Your task to perform on an android device: install app "PlayWell" Image 0: 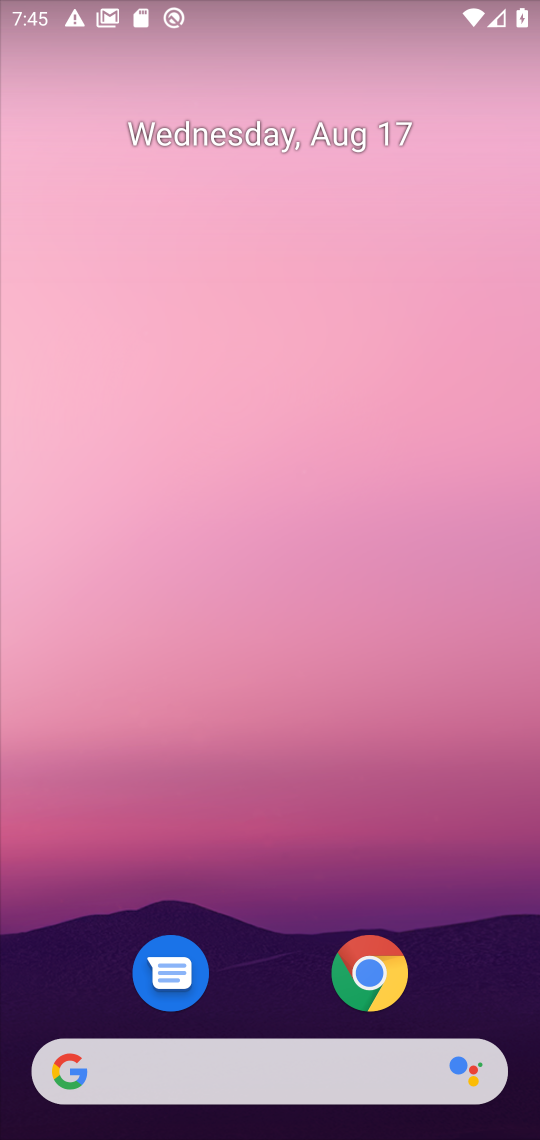
Step 0: drag from (344, 811) to (441, 204)
Your task to perform on an android device: install app "PlayWell" Image 1: 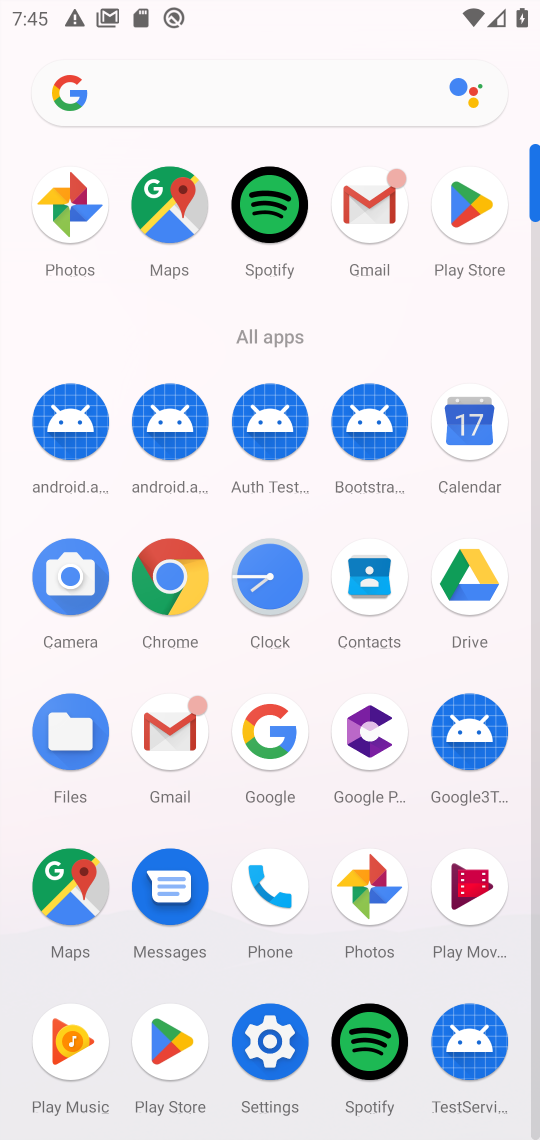
Step 1: click (459, 217)
Your task to perform on an android device: install app "PlayWell" Image 2: 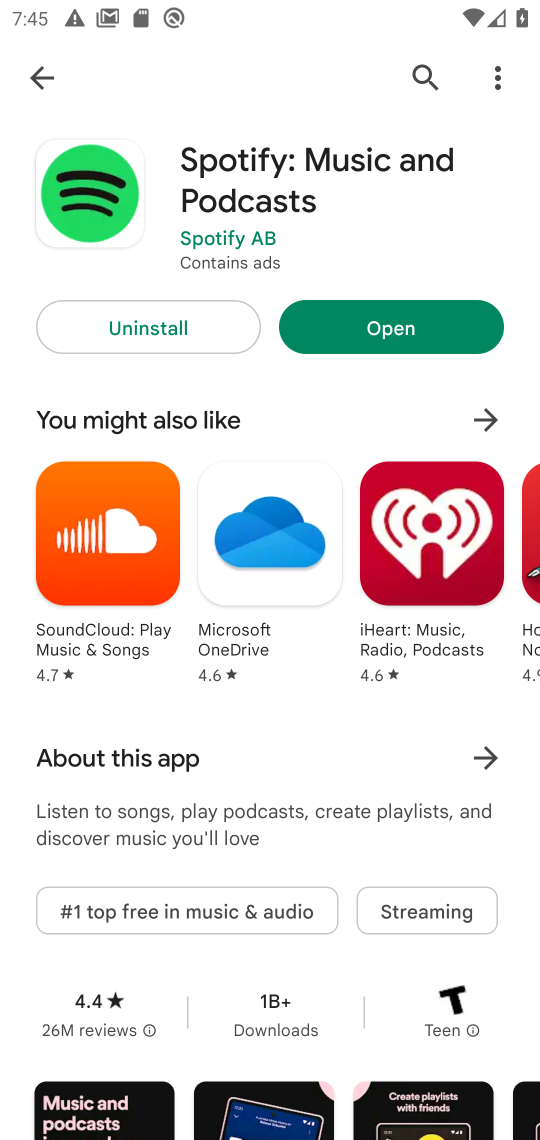
Step 2: click (42, 73)
Your task to perform on an android device: install app "PlayWell" Image 3: 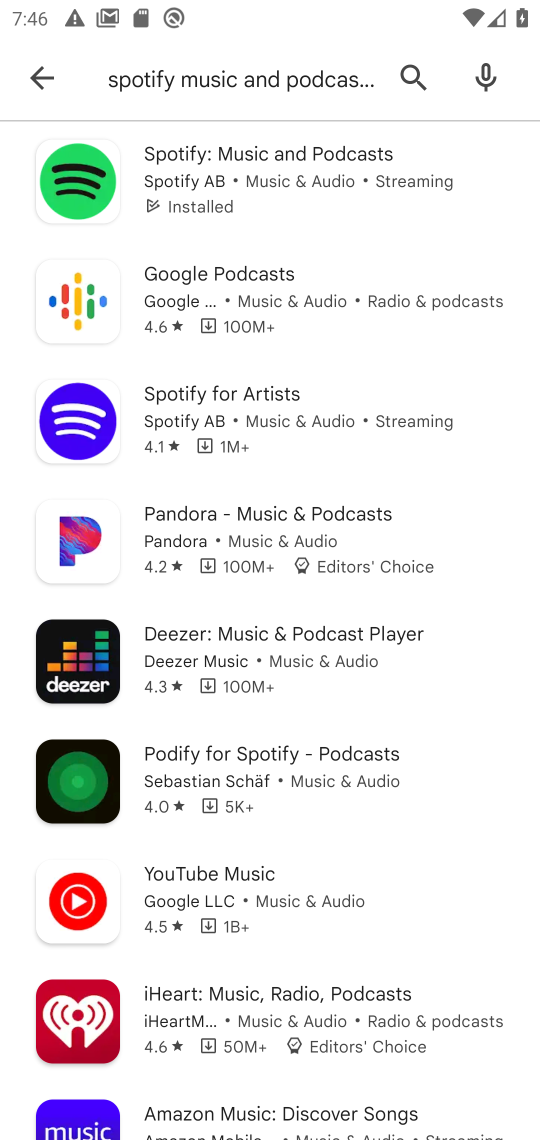
Step 3: click (48, 97)
Your task to perform on an android device: install app "PlayWell" Image 4: 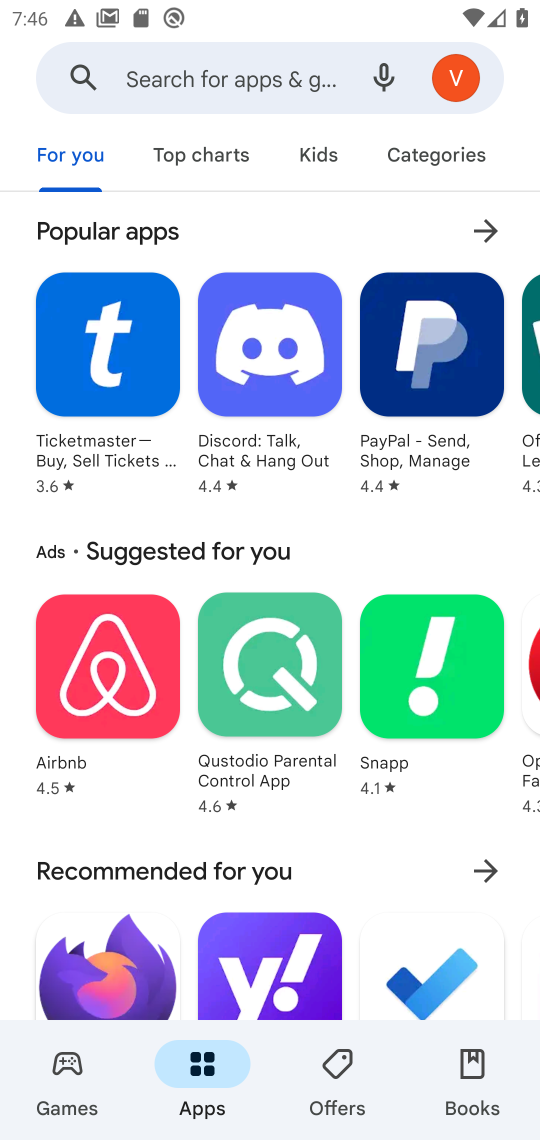
Step 4: click (182, 90)
Your task to perform on an android device: install app "PlayWell" Image 5: 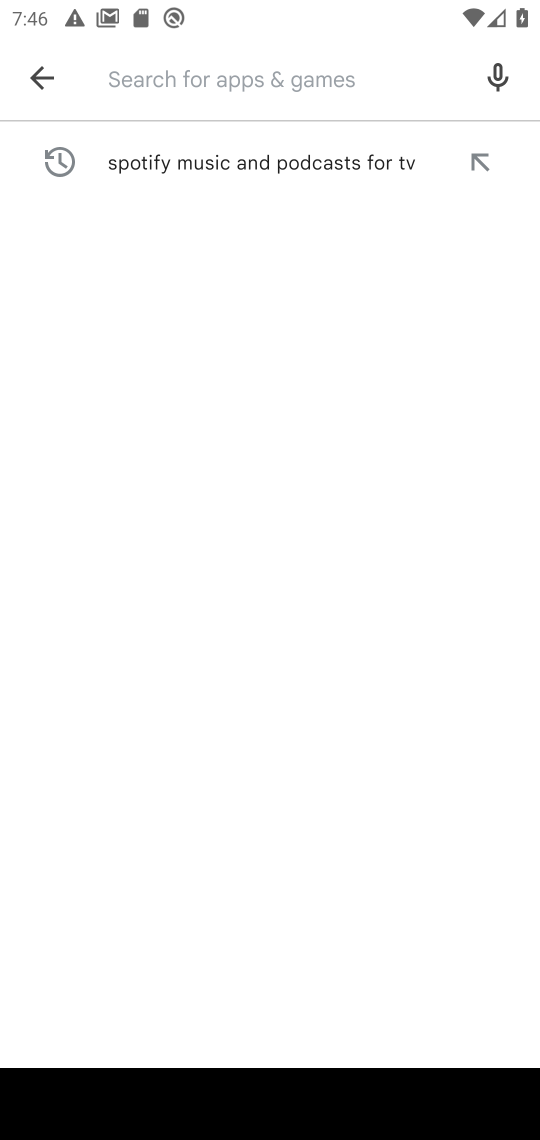
Step 5: type "PlayWell"
Your task to perform on an android device: install app "PlayWell" Image 6: 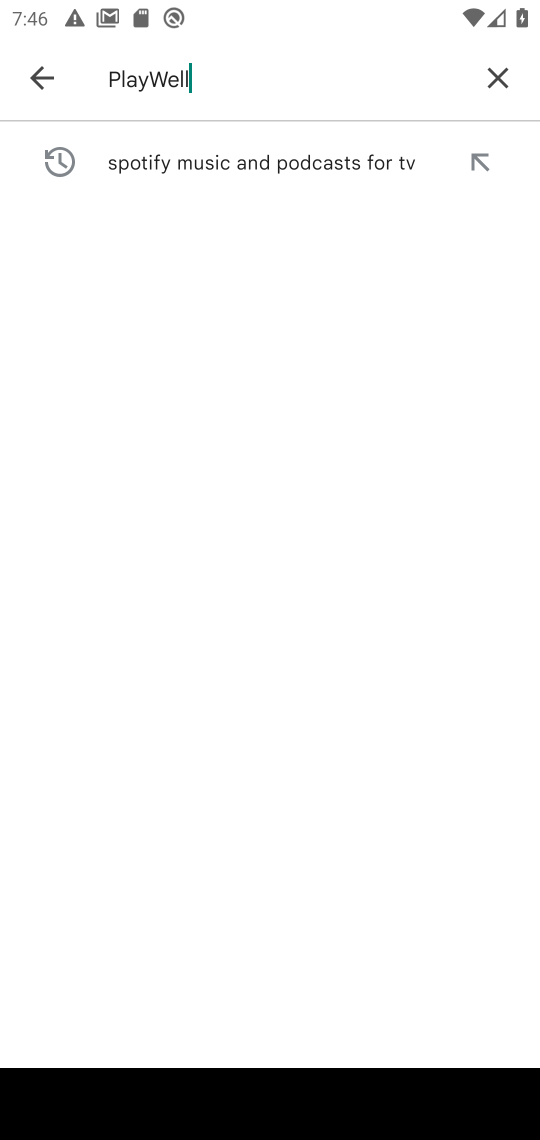
Step 6: type ""
Your task to perform on an android device: install app "PlayWell" Image 7: 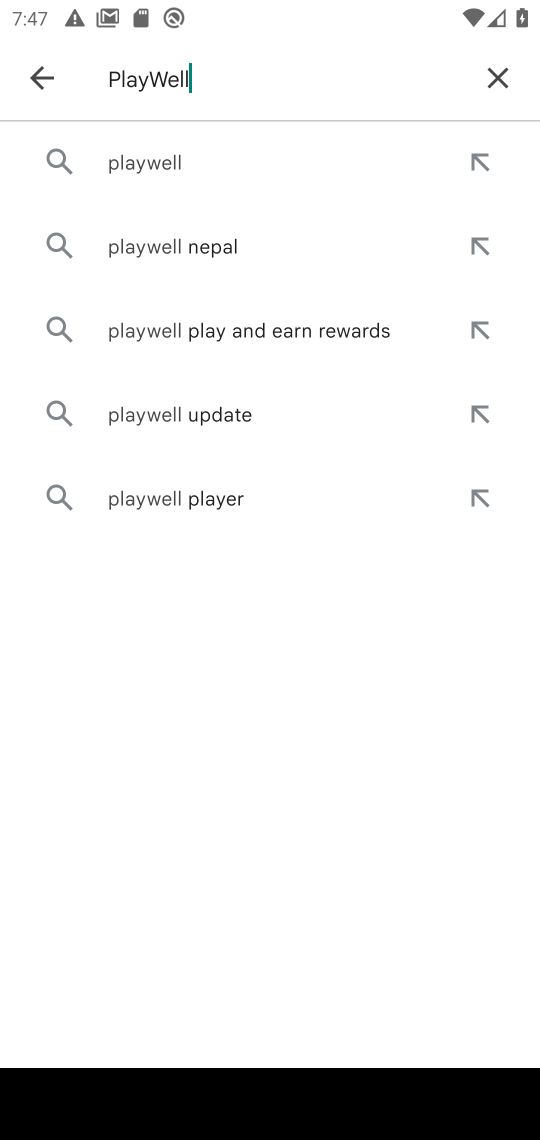
Step 7: click (142, 174)
Your task to perform on an android device: install app "PlayWell" Image 8: 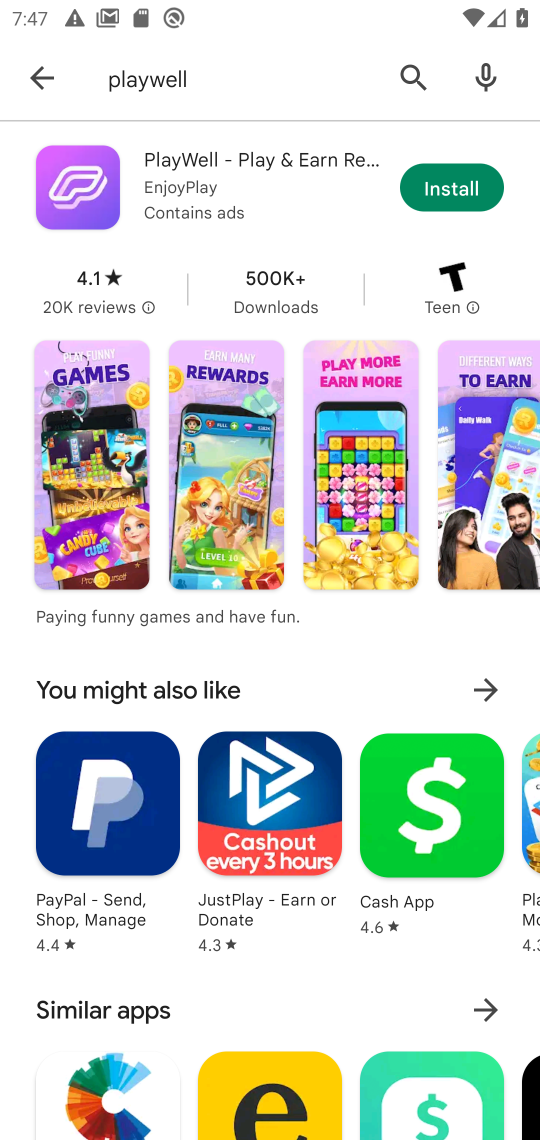
Step 8: click (475, 182)
Your task to perform on an android device: install app "PlayWell" Image 9: 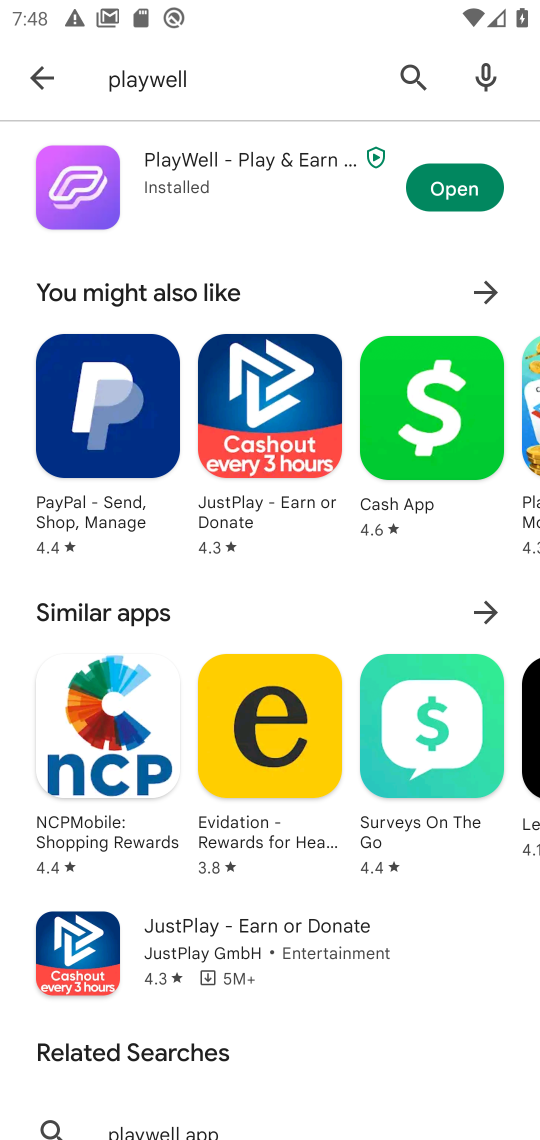
Step 9: task complete